Your task to perform on an android device: toggle notifications settings in the gmail app Image 0: 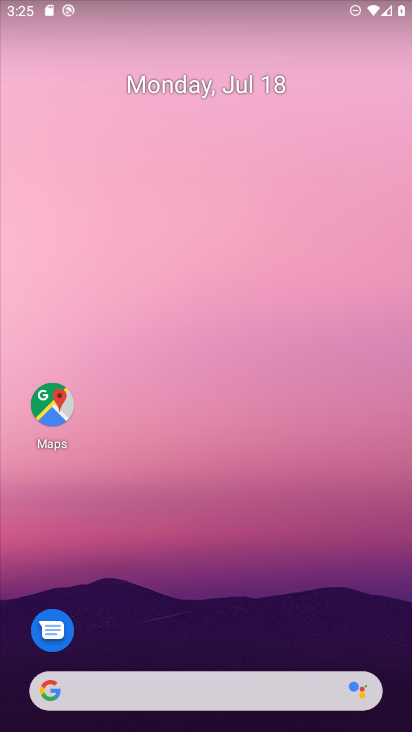
Step 0: drag from (281, 680) to (295, 25)
Your task to perform on an android device: toggle notifications settings in the gmail app Image 1: 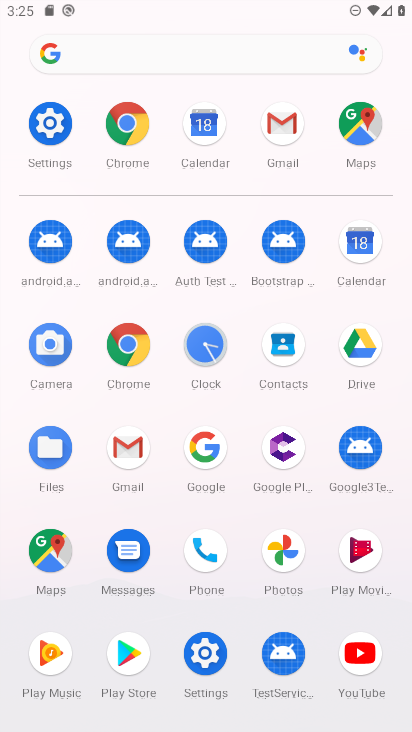
Step 1: click (137, 438)
Your task to perform on an android device: toggle notifications settings in the gmail app Image 2: 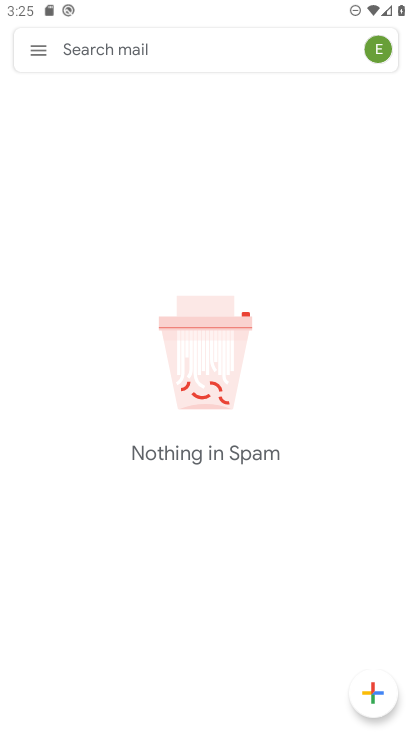
Step 2: click (45, 48)
Your task to perform on an android device: toggle notifications settings in the gmail app Image 3: 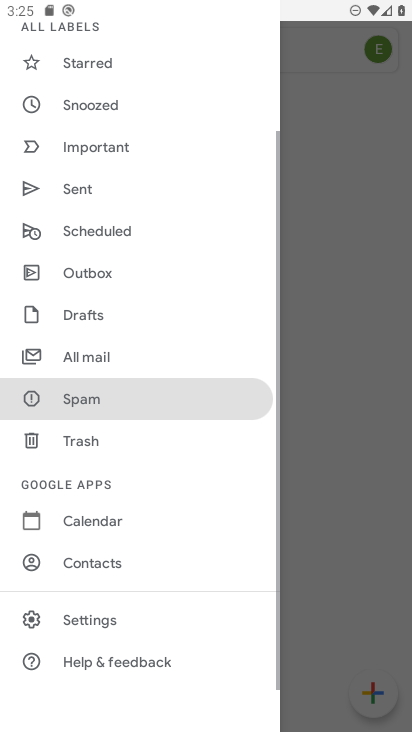
Step 3: click (117, 613)
Your task to perform on an android device: toggle notifications settings in the gmail app Image 4: 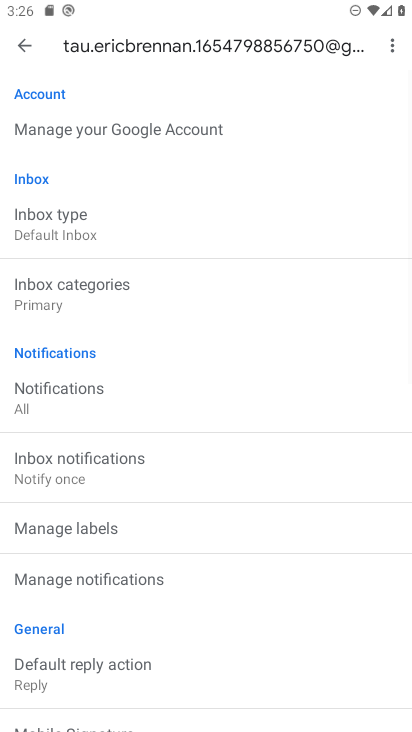
Step 4: click (95, 584)
Your task to perform on an android device: toggle notifications settings in the gmail app Image 5: 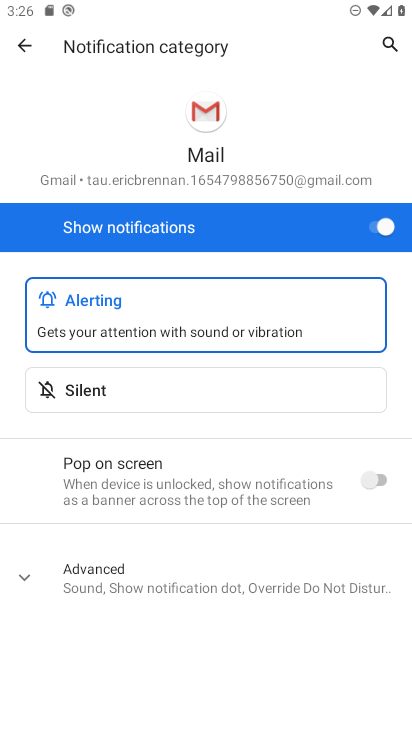
Step 5: click (390, 226)
Your task to perform on an android device: toggle notifications settings in the gmail app Image 6: 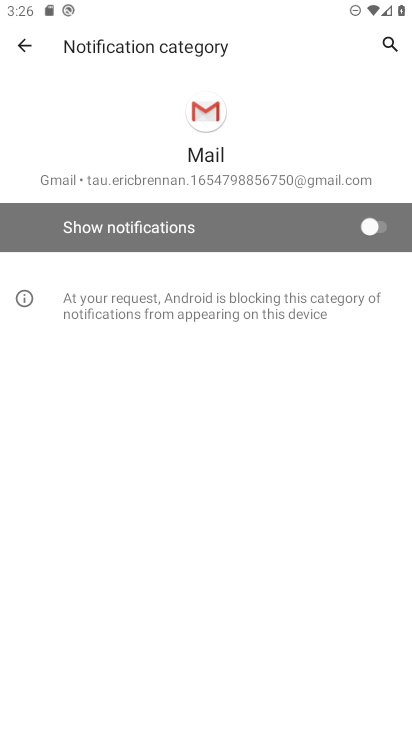
Step 6: task complete